Your task to perform on an android device: Is it going to rain this weekend? Image 0: 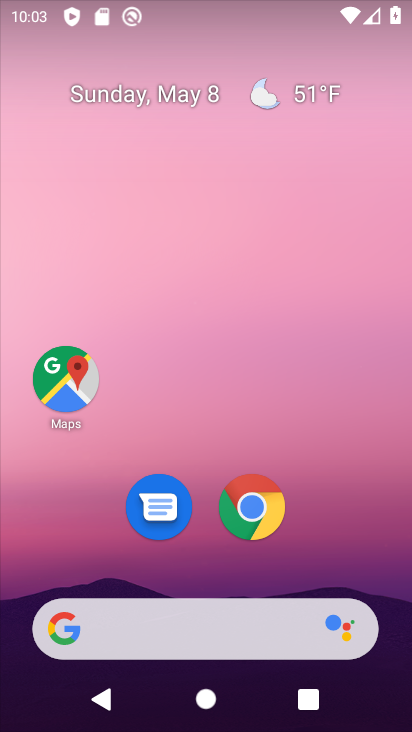
Step 0: press home button
Your task to perform on an android device: Is it going to rain this weekend? Image 1: 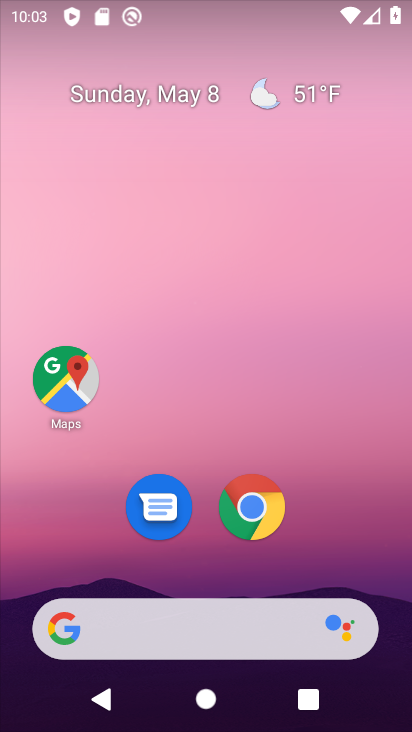
Step 1: drag from (194, 571) to (223, 123)
Your task to perform on an android device: Is it going to rain this weekend? Image 2: 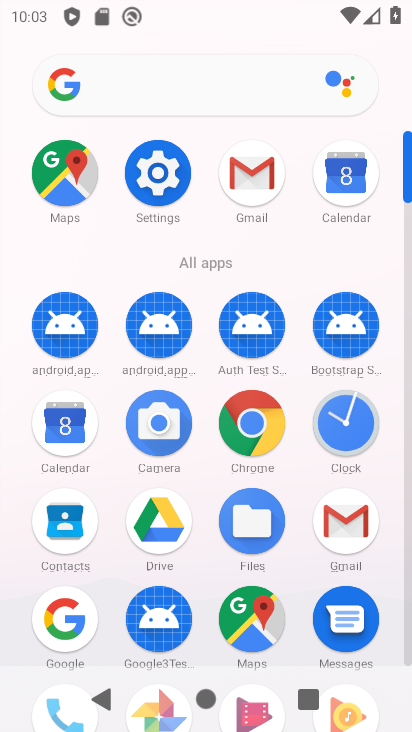
Step 2: press back button
Your task to perform on an android device: Is it going to rain this weekend? Image 3: 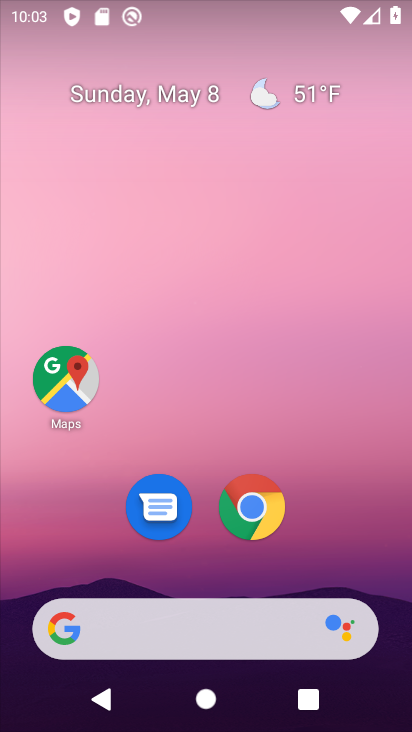
Step 3: click (291, 89)
Your task to perform on an android device: Is it going to rain this weekend? Image 4: 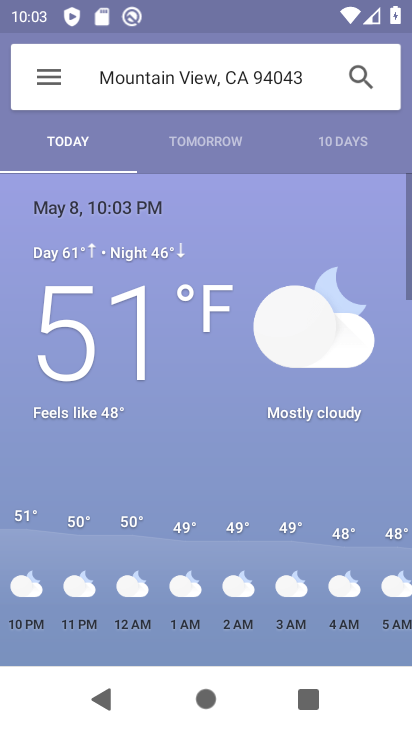
Step 4: click (340, 153)
Your task to perform on an android device: Is it going to rain this weekend? Image 5: 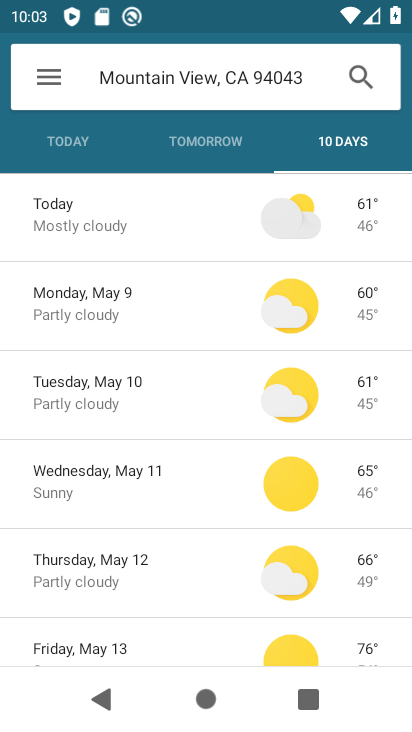
Step 5: task complete